Your task to perform on an android device: Open Google Maps and go to "Timeline" Image 0: 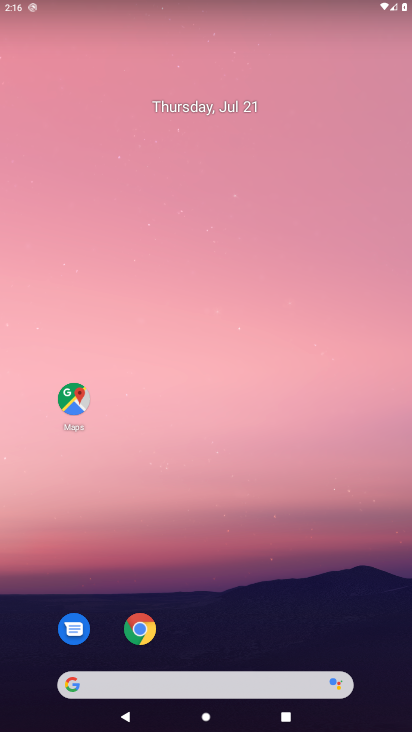
Step 0: click (75, 397)
Your task to perform on an android device: Open Google Maps and go to "Timeline" Image 1: 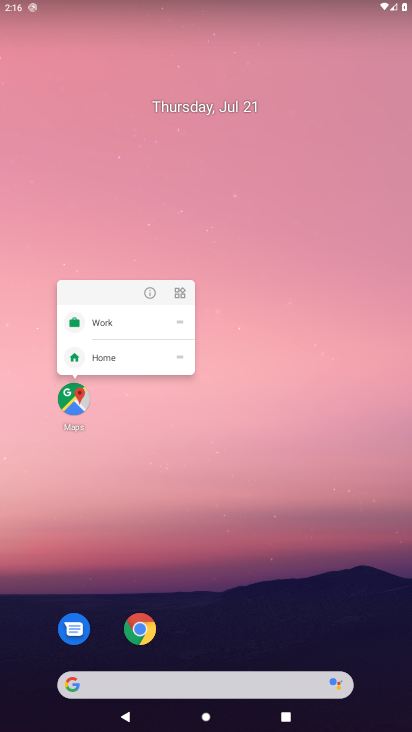
Step 1: click (56, 405)
Your task to perform on an android device: Open Google Maps and go to "Timeline" Image 2: 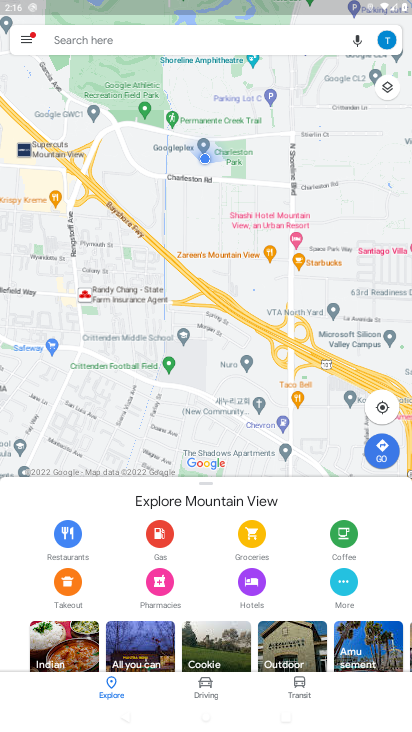
Step 2: click (31, 30)
Your task to perform on an android device: Open Google Maps and go to "Timeline" Image 3: 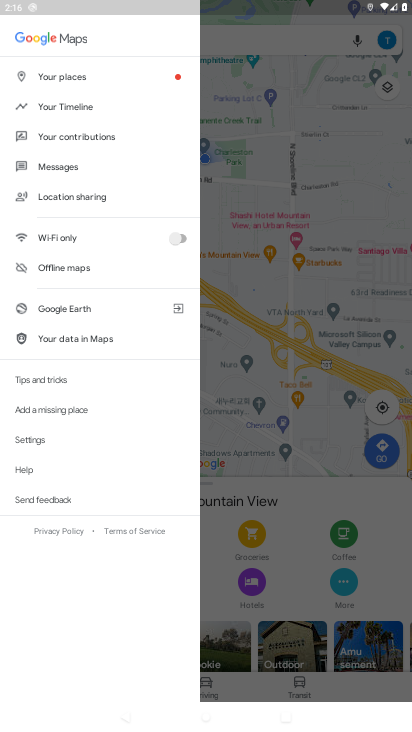
Step 3: click (32, 33)
Your task to perform on an android device: Open Google Maps and go to "Timeline" Image 4: 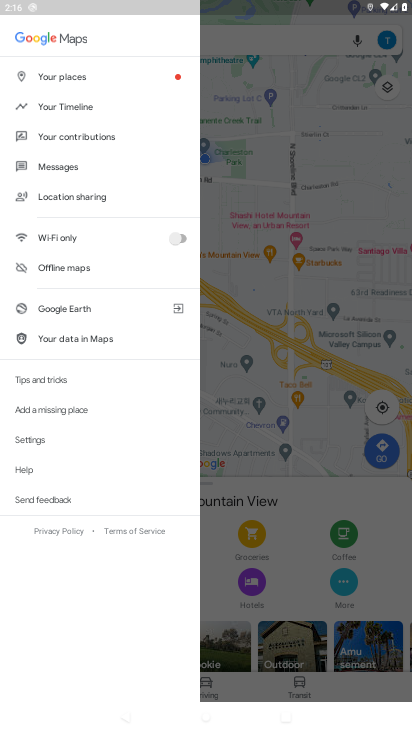
Step 4: click (64, 105)
Your task to perform on an android device: Open Google Maps and go to "Timeline" Image 5: 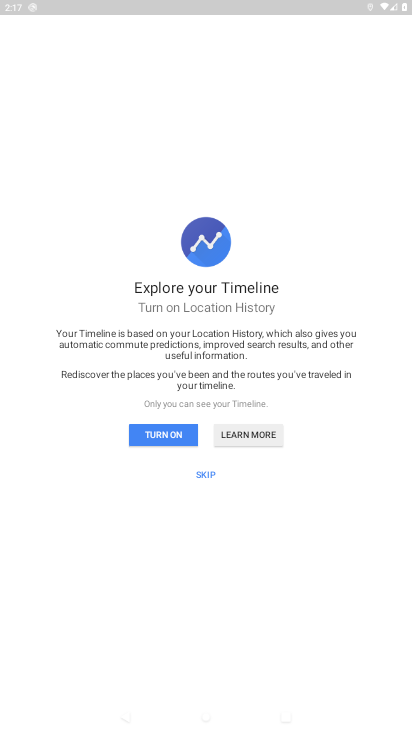
Step 5: click (197, 467)
Your task to perform on an android device: Open Google Maps and go to "Timeline" Image 6: 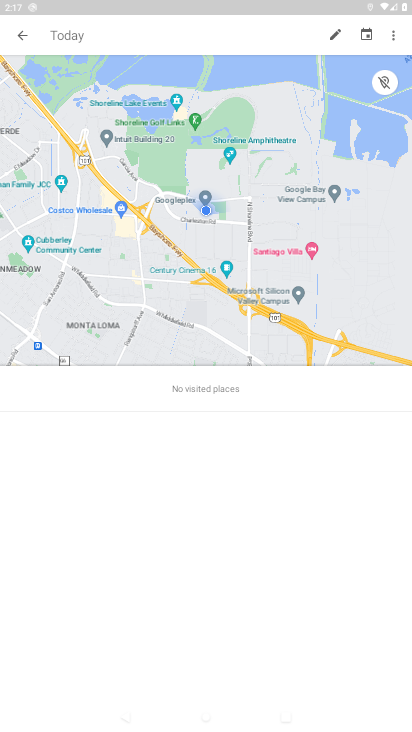
Step 6: task complete